Your task to perform on an android device: change keyboard looks Image 0: 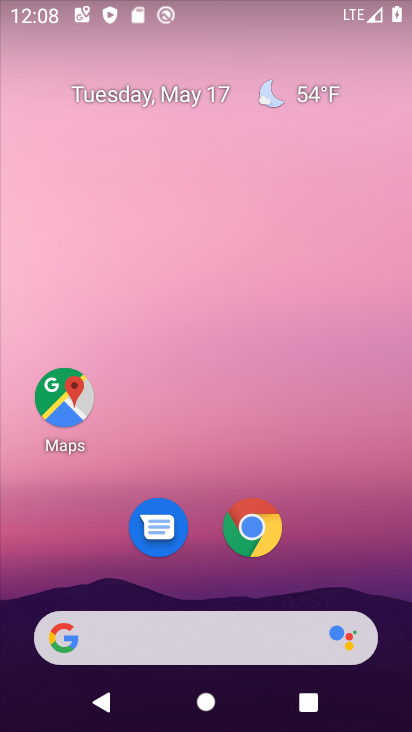
Step 0: drag from (241, 676) to (224, 65)
Your task to perform on an android device: change keyboard looks Image 1: 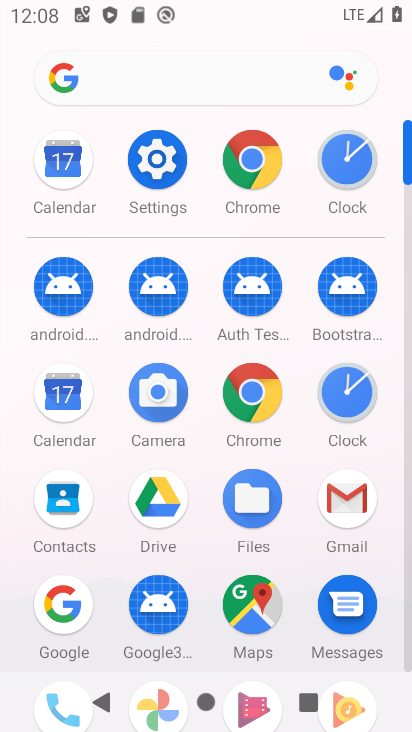
Step 1: click (144, 151)
Your task to perform on an android device: change keyboard looks Image 2: 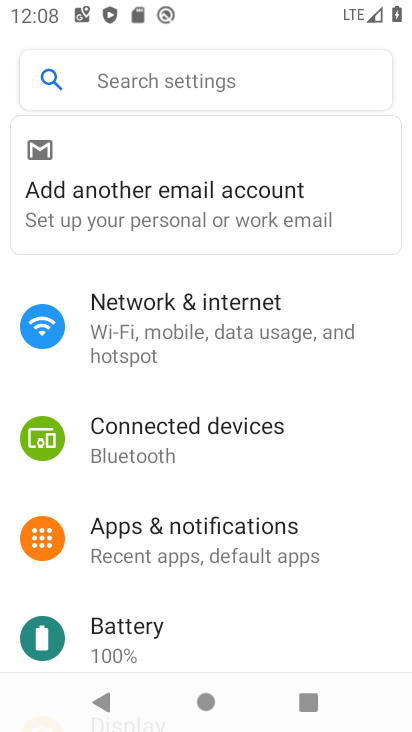
Step 2: click (183, 92)
Your task to perform on an android device: change keyboard looks Image 3: 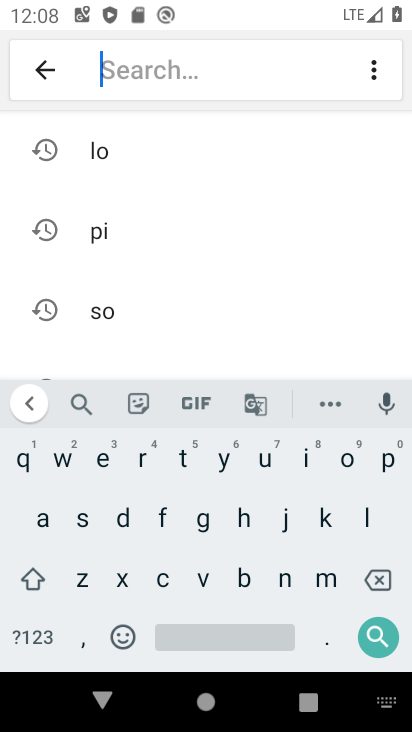
Step 3: click (316, 521)
Your task to perform on an android device: change keyboard looks Image 4: 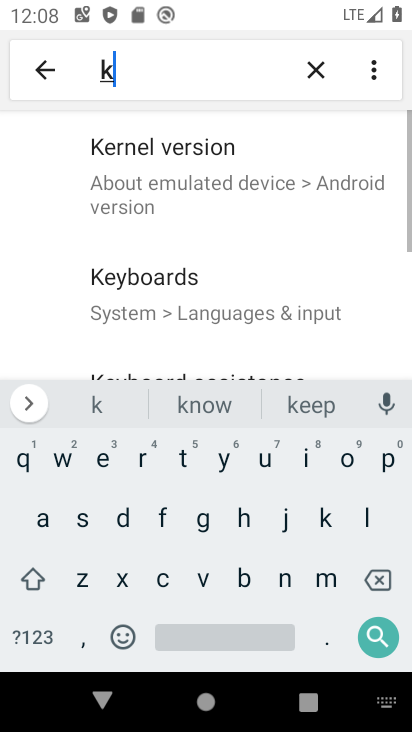
Step 4: click (95, 461)
Your task to perform on an android device: change keyboard looks Image 5: 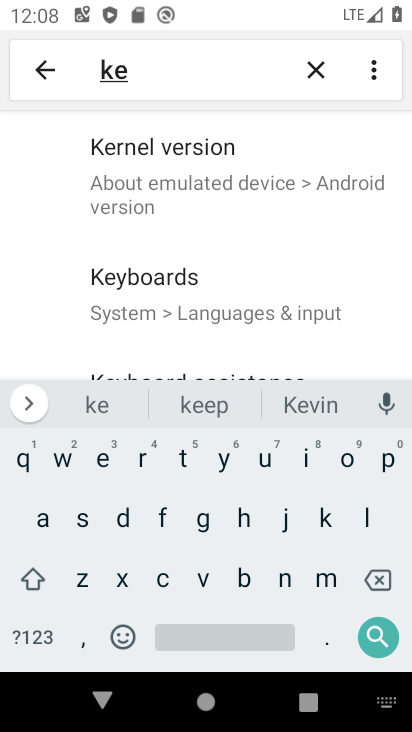
Step 5: click (177, 280)
Your task to perform on an android device: change keyboard looks Image 6: 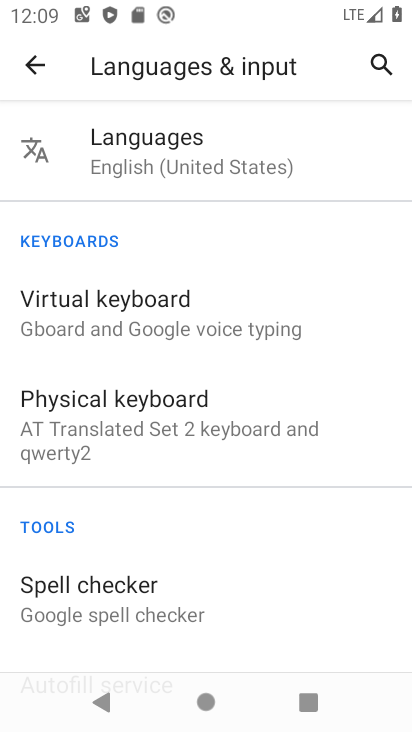
Step 6: click (157, 307)
Your task to perform on an android device: change keyboard looks Image 7: 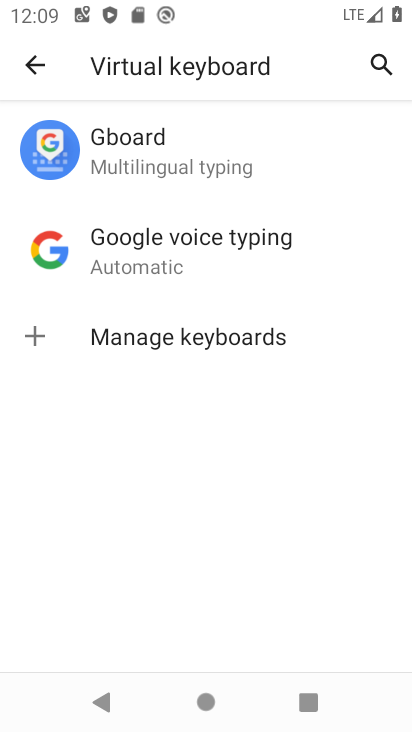
Step 7: click (140, 171)
Your task to perform on an android device: change keyboard looks Image 8: 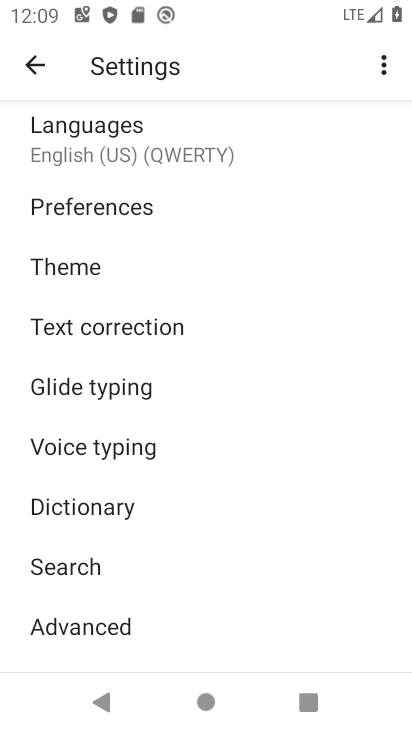
Step 8: click (88, 265)
Your task to perform on an android device: change keyboard looks Image 9: 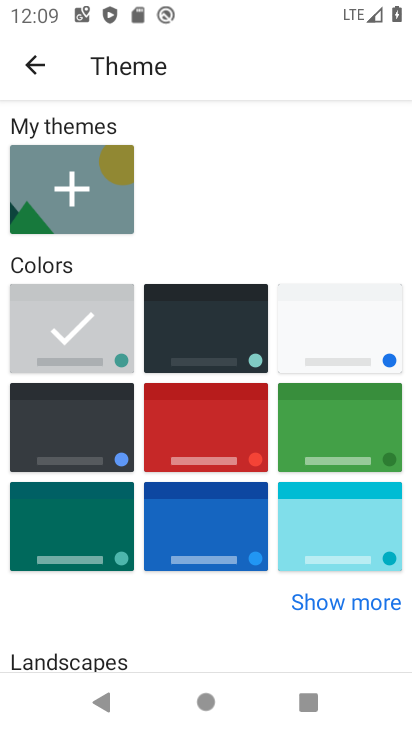
Step 9: click (59, 531)
Your task to perform on an android device: change keyboard looks Image 10: 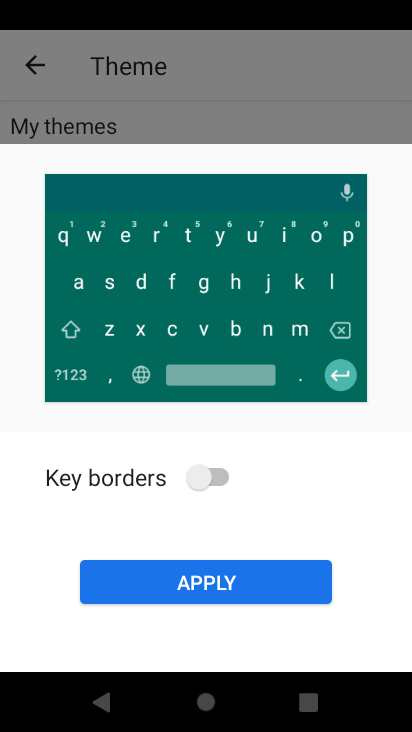
Step 10: click (215, 482)
Your task to perform on an android device: change keyboard looks Image 11: 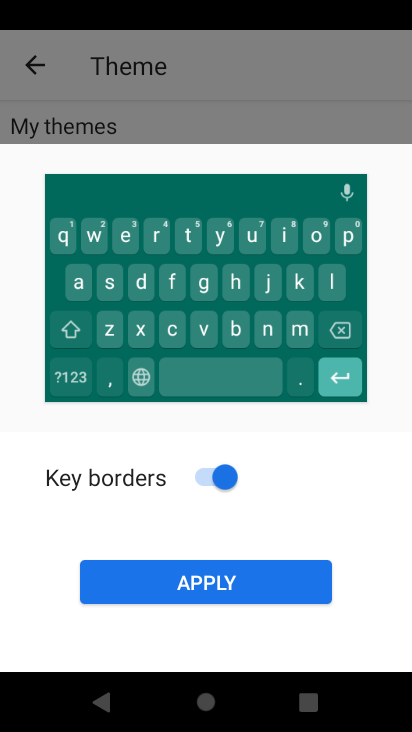
Step 11: click (235, 588)
Your task to perform on an android device: change keyboard looks Image 12: 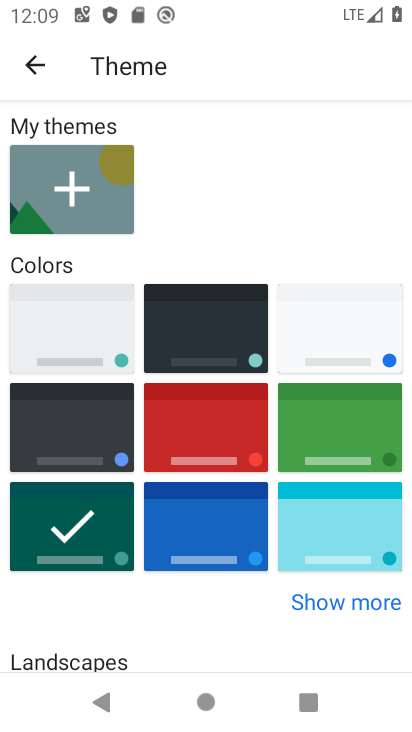
Step 12: task complete